Your task to perform on an android device: check out phone information Image 0: 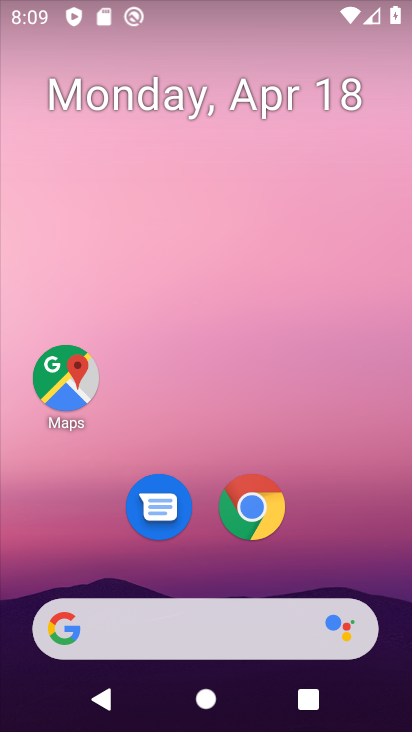
Step 0: drag from (206, 568) to (193, 57)
Your task to perform on an android device: check out phone information Image 1: 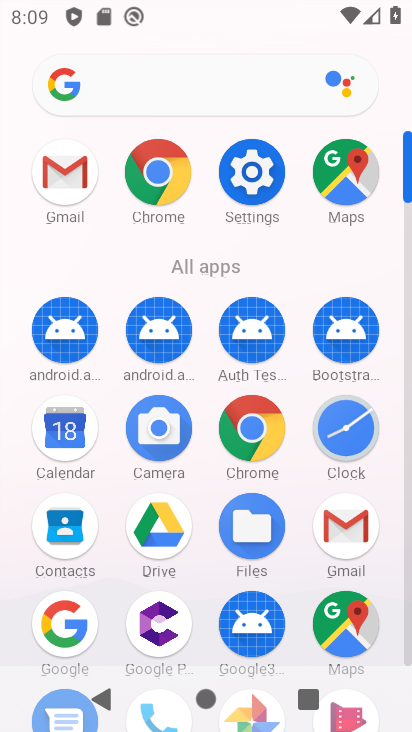
Step 1: click (242, 180)
Your task to perform on an android device: check out phone information Image 2: 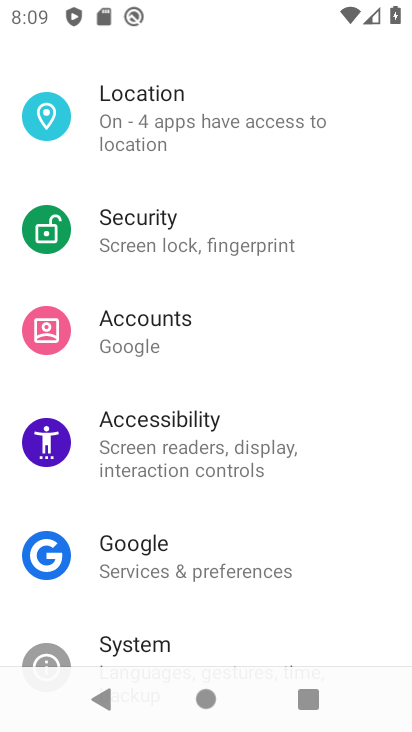
Step 2: drag from (213, 618) to (213, 171)
Your task to perform on an android device: check out phone information Image 3: 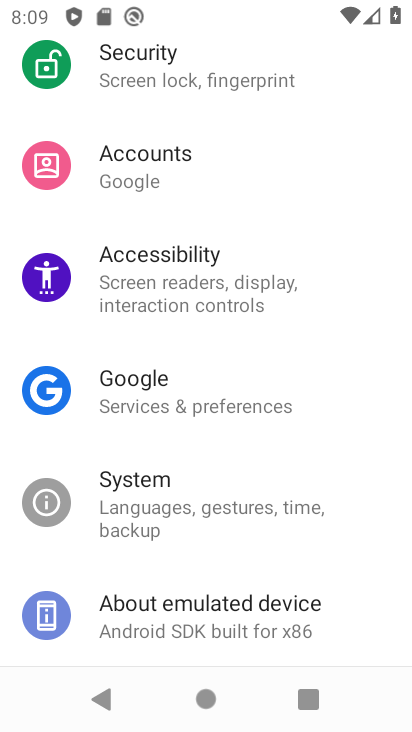
Step 3: click (229, 622)
Your task to perform on an android device: check out phone information Image 4: 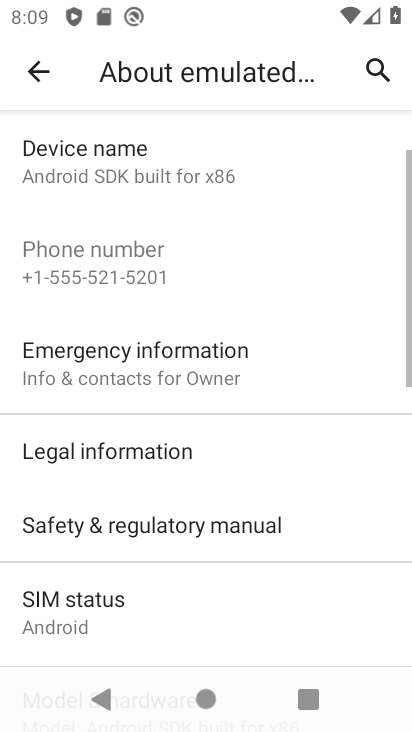
Step 4: drag from (300, 569) to (297, 296)
Your task to perform on an android device: check out phone information Image 5: 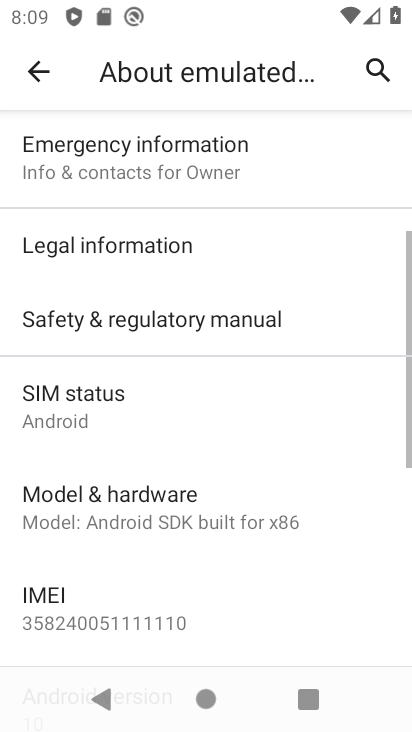
Step 5: drag from (305, 559) to (312, 290)
Your task to perform on an android device: check out phone information Image 6: 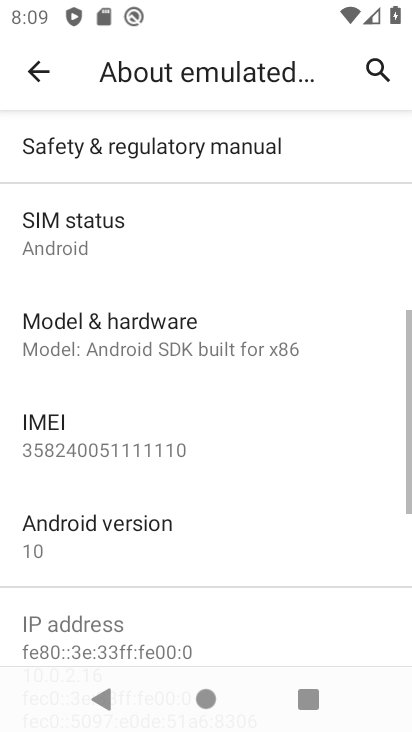
Step 6: click (120, 339)
Your task to perform on an android device: check out phone information Image 7: 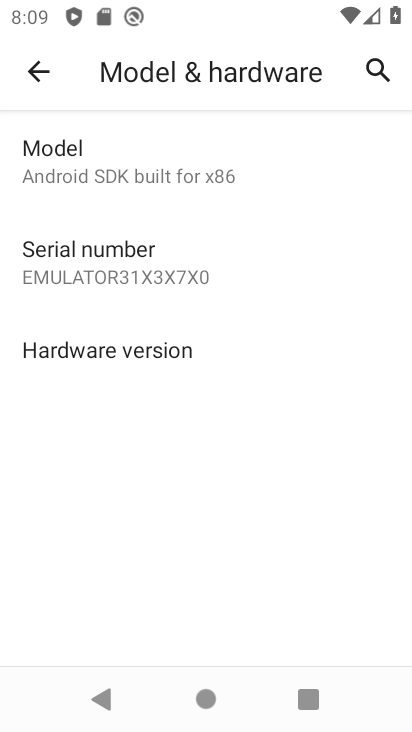
Step 7: task complete